Your task to perform on an android device: turn off translation in the chrome app Image 0: 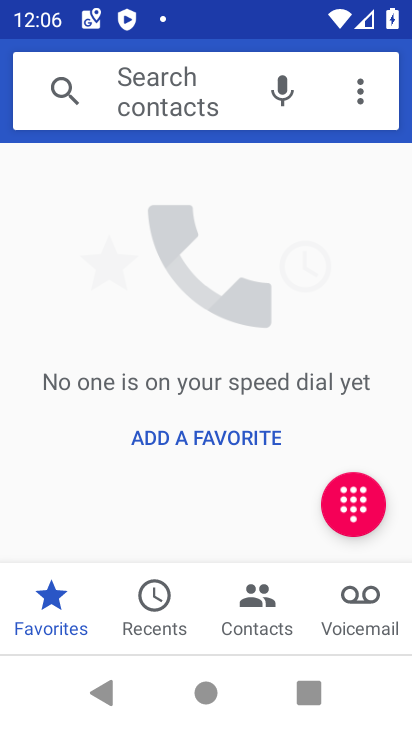
Step 0: press home button
Your task to perform on an android device: turn off translation in the chrome app Image 1: 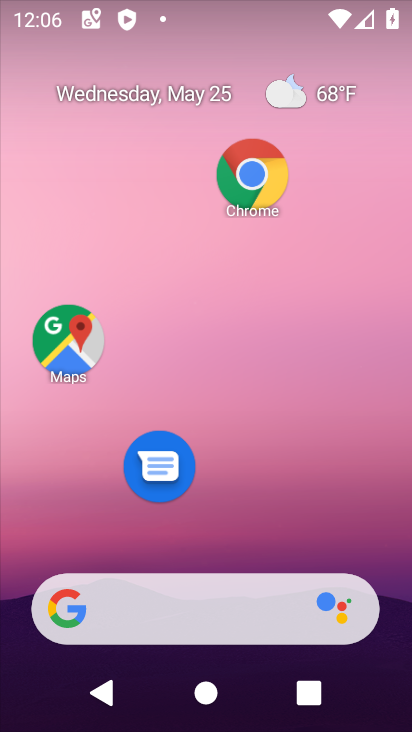
Step 1: drag from (204, 545) to (198, 102)
Your task to perform on an android device: turn off translation in the chrome app Image 2: 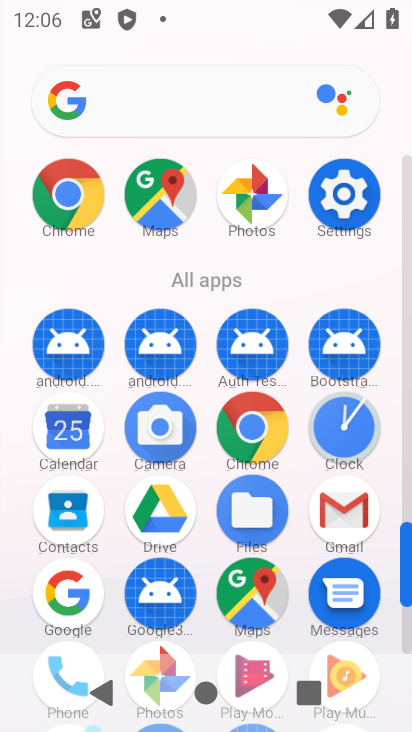
Step 2: click (82, 196)
Your task to perform on an android device: turn off translation in the chrome app Image 3: 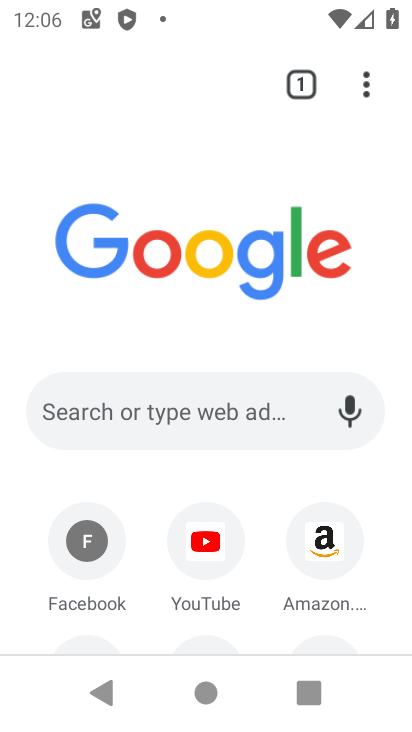
Step 3: click (364, 75)
Your task to perform on an android device: turn off translation in the chrome app Image 4: 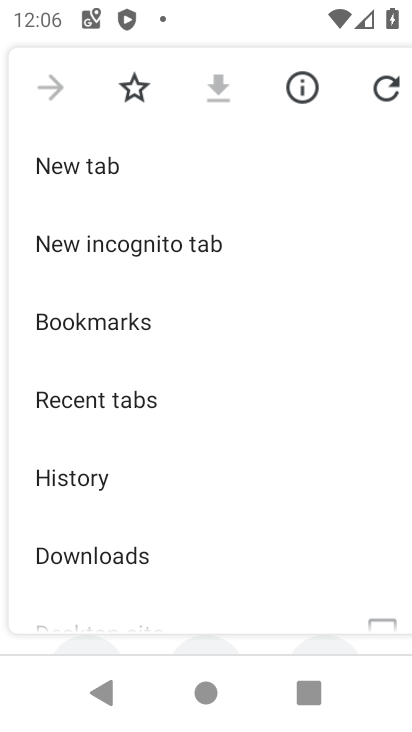
Step 4: drag from (191, 474) to (185, 150)
Your task to perform on an android device: turn off translation in the chrome app Image 5: 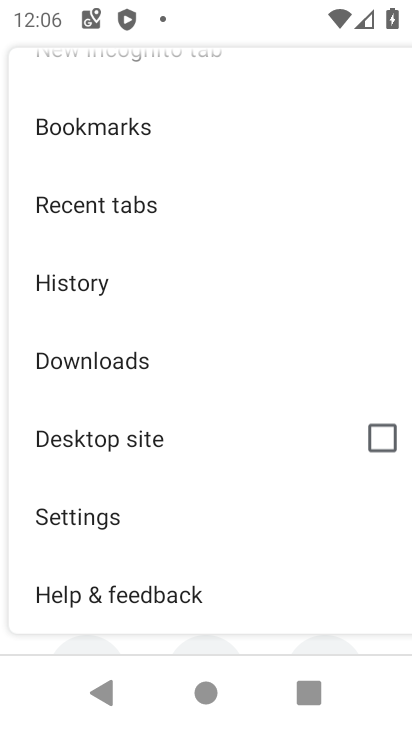
Step 5: click (83, 512)
Your task to perform on an android device: turn off translation in the chrome app Image 6: 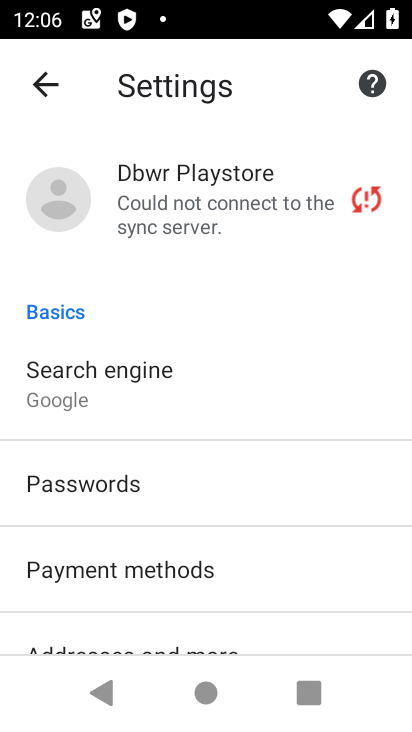
Step 6: click (83, 512)
Your task to perform on an android device: turn off translation in the chrome app Image 7: 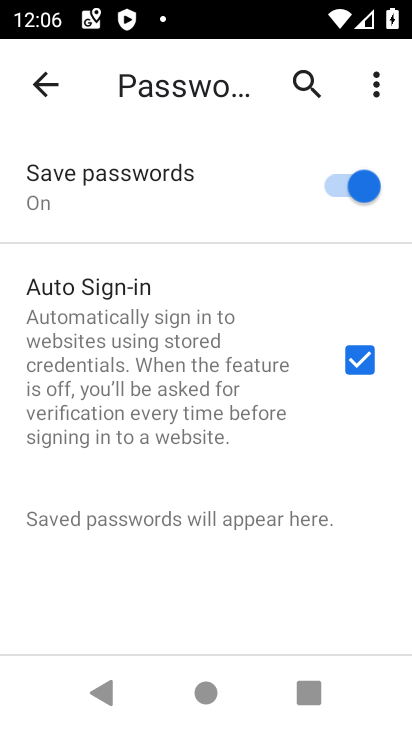
Step 7: click (37, 108)
Your task to perform on an android device: turn off translation in the chrome app Image 8: 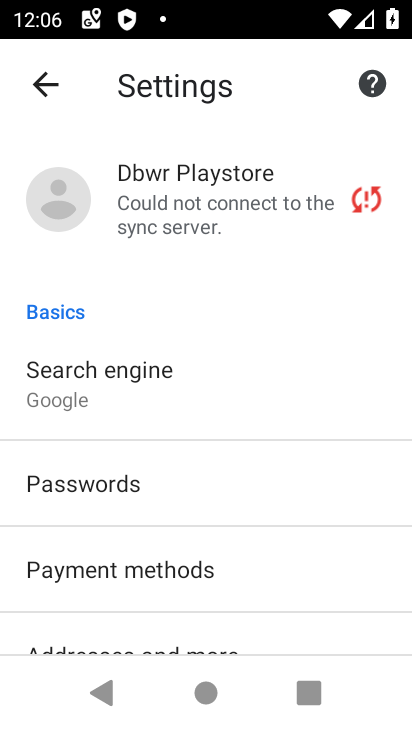
Step 8: drag from (150, 547) to (161, 121)
Your task to perform on an android device: turn off translation in the chrome app Image 9: 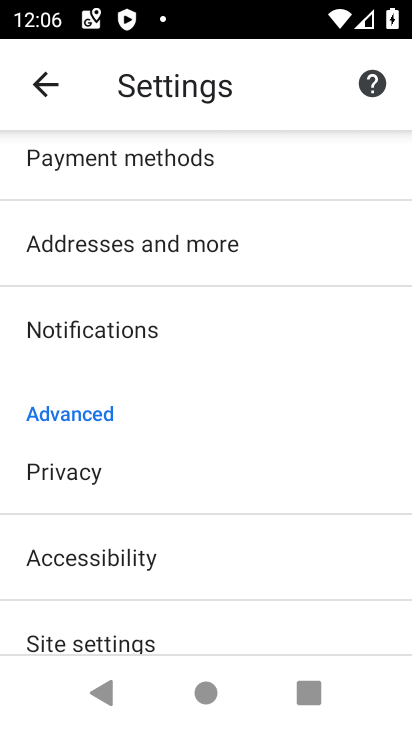
Step 9: drag from (107, 488) to (107, 209)
Your task to perform on an android device: turn off translation in the chrome app Image 10: 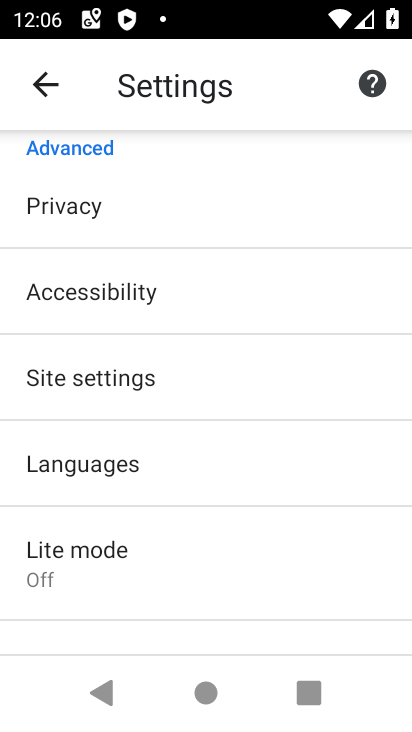
Step 10: click (41, 456)
Your task to perform on an android device: turn off translation in the chrome app Image 11: 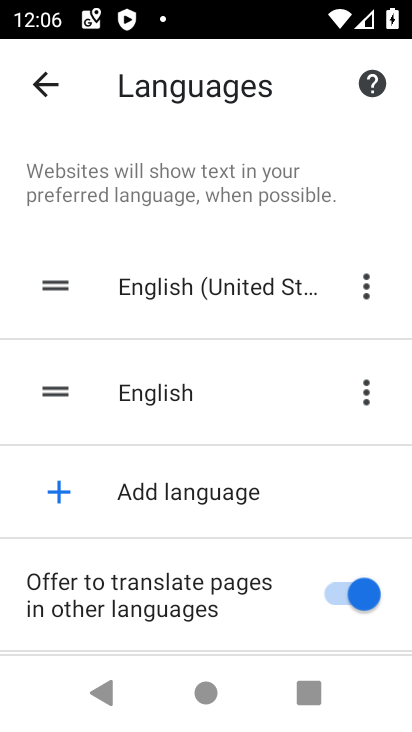
Step 11: click (339, 590)
Your task to perform on an android device: turn off translation in the chrome app Image 12: 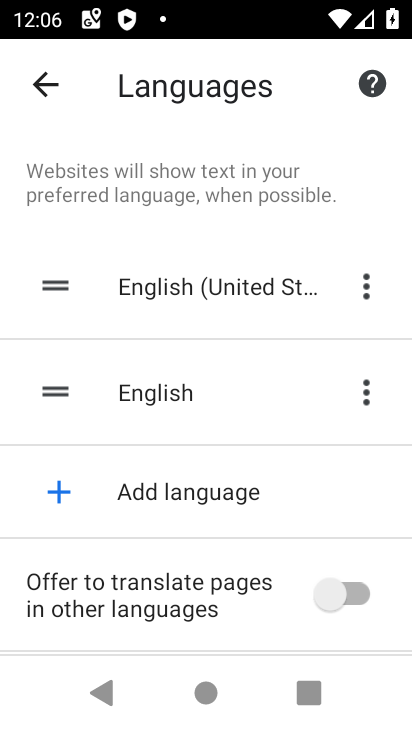
Step 12: task complete